Your task to perform on an android device: delete a single message in the gmail app Image 0: 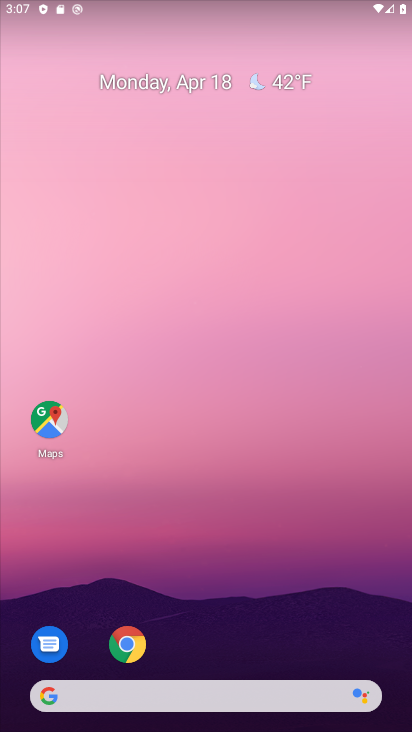
Step 0: drag from (246, 610) to (293, 93)
Your task to perform on an android device: delete a single message in the gmail app Image 1: 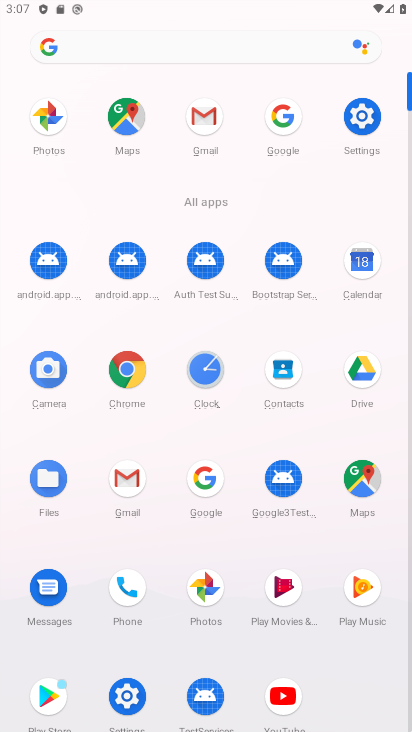
Step 1: click (198, 132)
Your task to perform on an android device: delete a single message in the gmail app Image 2: 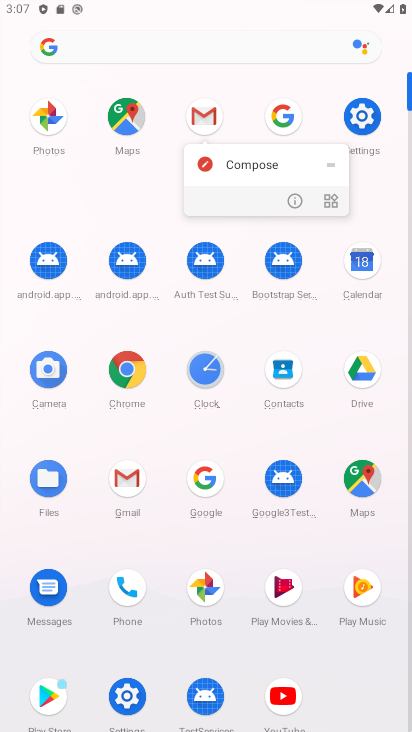
Step 2: click (200, 116)
Your task to perform on an android device: delete a single message in the gmail app Image 3: 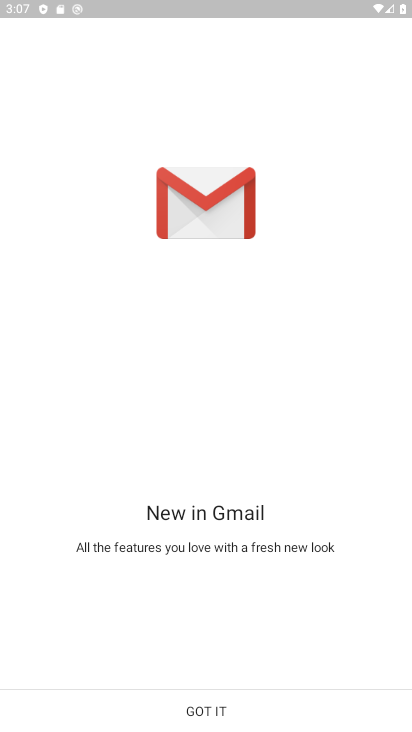
Step 3: click (187, 708)
Your task to perform on an android device: delete a single message in the gmail app Image 4: 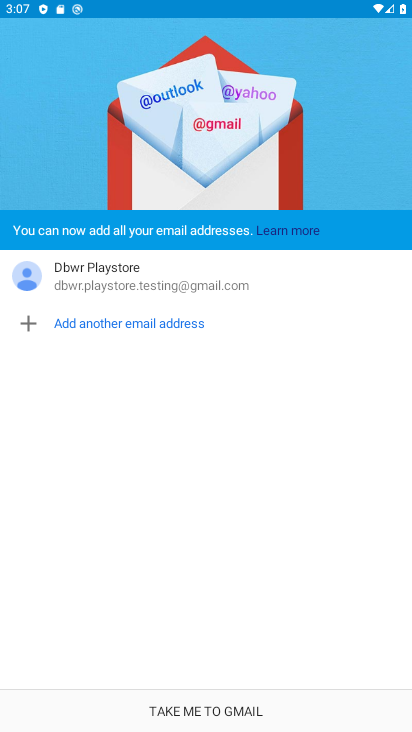
Step 4: click (187, 704)
Your task to perform on an android device: delete a single message in the gmail app Image 5: 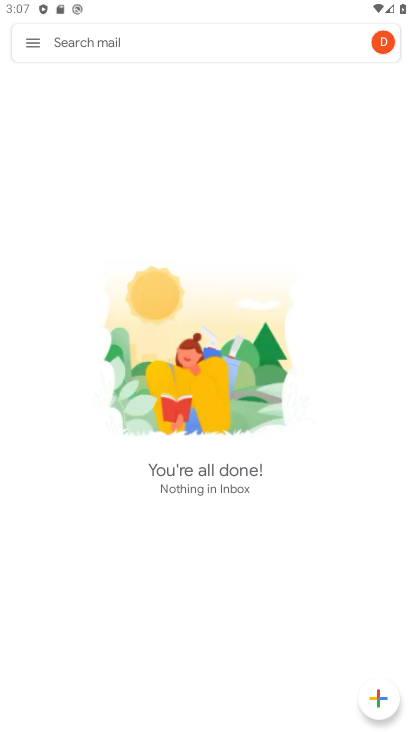
Step 5: click (33, 44)
Your task to perform on an android device: delete a single message in the gmail app Image 6: 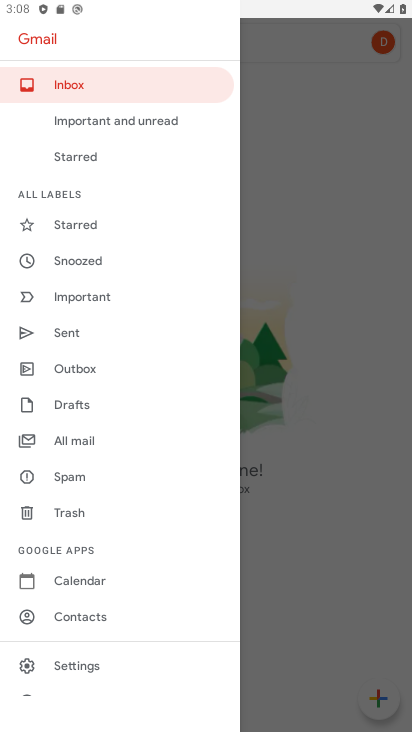
Step 6: click (78, 443)
Your task to perform on an android device: delete a single message in the gmail app Image 7: 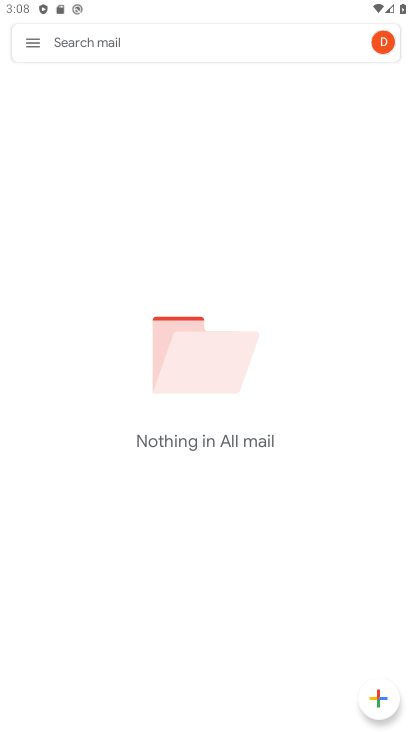
Step 7: task complete